Your task to perform on an android device: Go to accessibility settings Image 0: 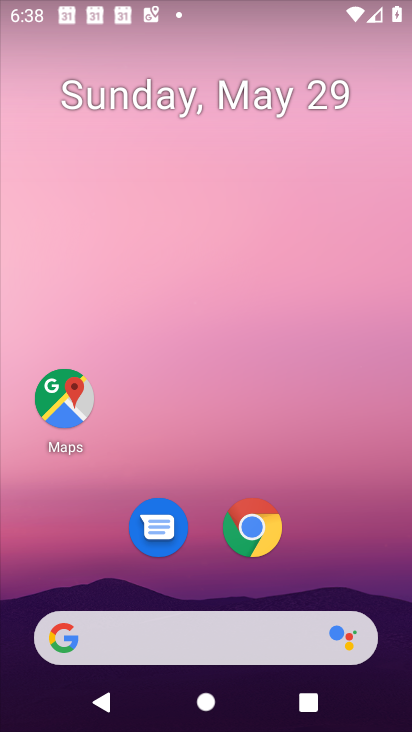
Step 0: drag from (398, 611) to (299, 115)
Your task to perform on an android device: Go to accessibility settings Image 1: 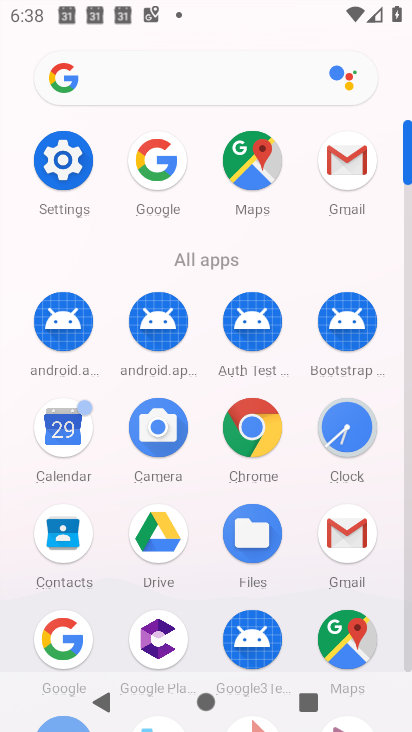
Step 1: click (28, 156)
Your task to perform on an android device: Go to accessibility settings Image 2: 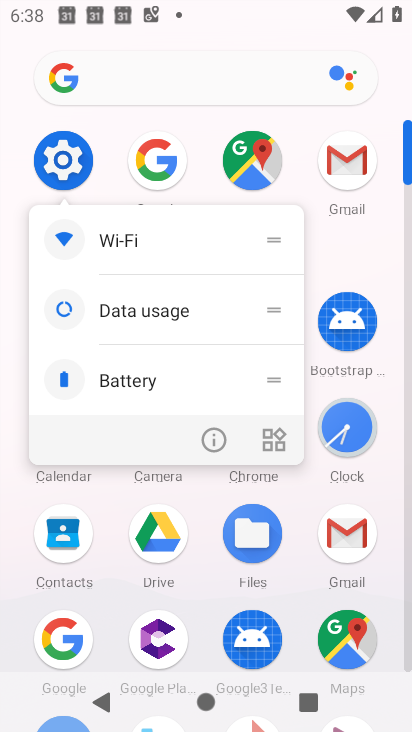
Step 2: click (53, 169)
Your task to perform on an android device: Go to accessibility settings Image 3: 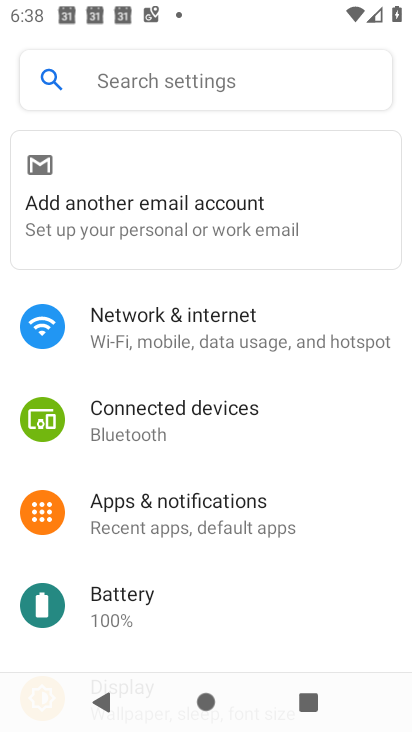
Step 3: drag from (158, 598) to (208, 162)
Your task to perform on an android device: Go to accessibility settings Image 4: 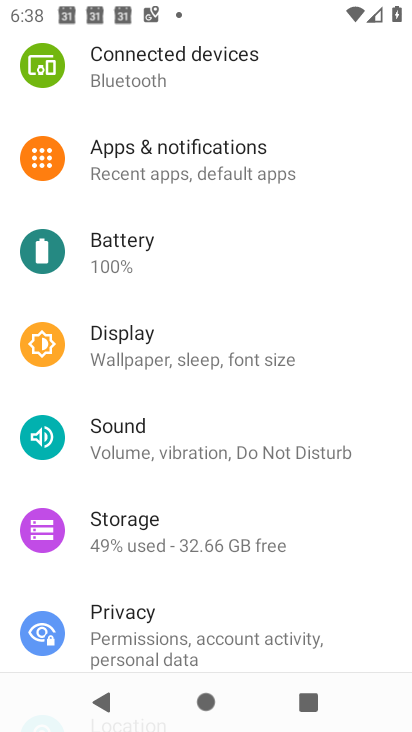
Step 4: drag from (146, 566) to (228, 130)
Your task to perform on an android device: Go to accessibility settings Image 5: 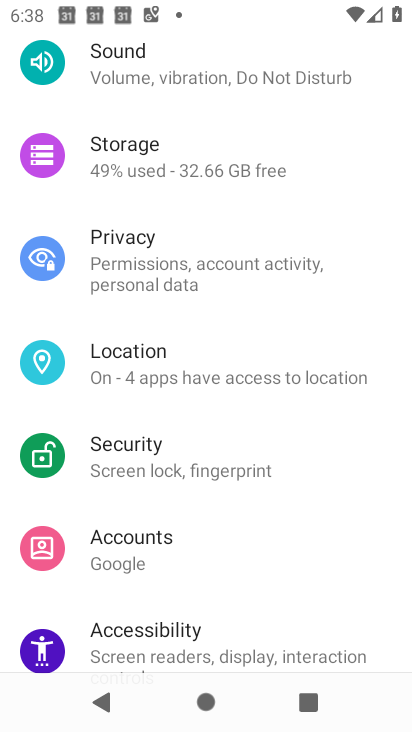
Step 5: click (139, 623)
Your task to perform on an android device: Go to accessibility settings Image 6: 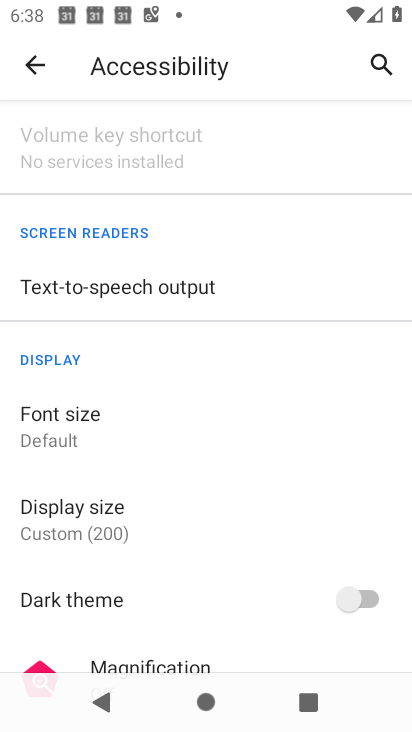
Step 6: task complete